Your task to perform on an android device: Go to calendar. Show me events next week Image 0: 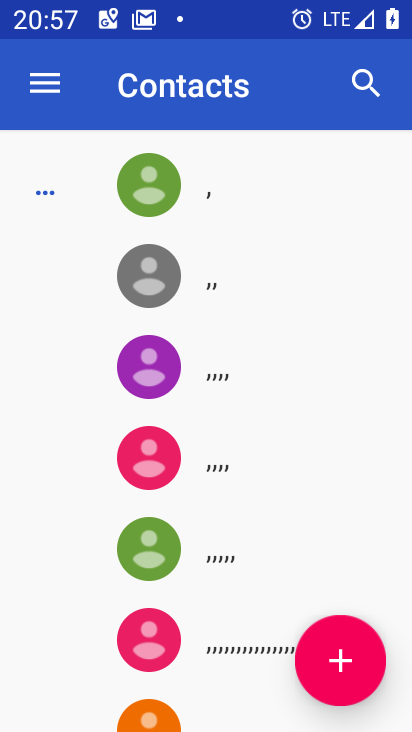
Step 0: press home button
Your task to perform on an android device: Go to calendar. Show me events next week Image 1: 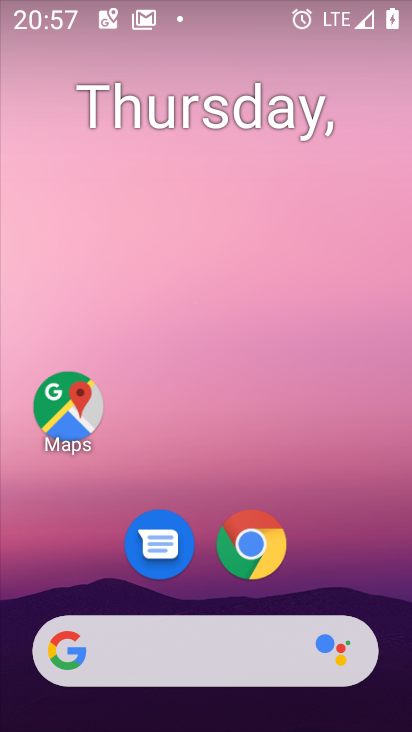
Step 1: click (192, 112)
Your task to perform on an android device: Go to calendar. Show me events next week Image 2: 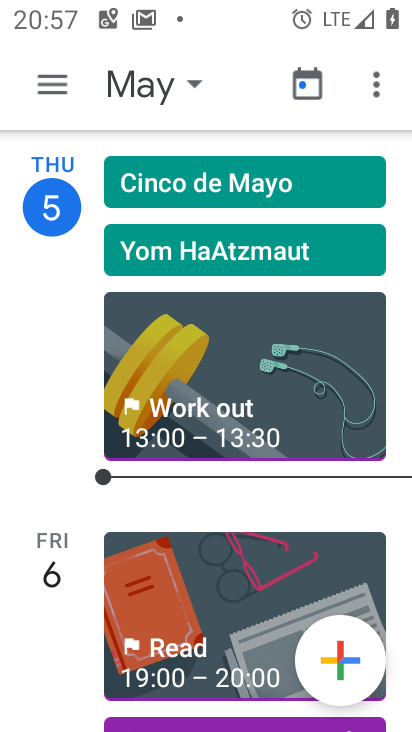
Step 2: click (178, 99)
Your task to perform on an android device: Go to calendar. Show me events next week Image 3: 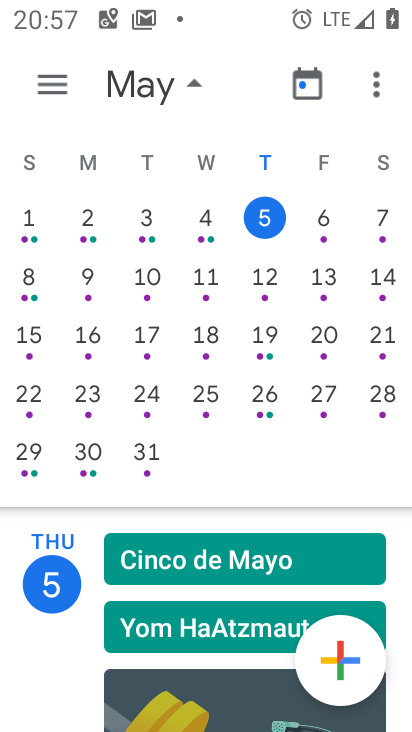
Step 3: click (166, 292)
Your task to perform on an android device: Go to calendar. Show me events next week Image 4: 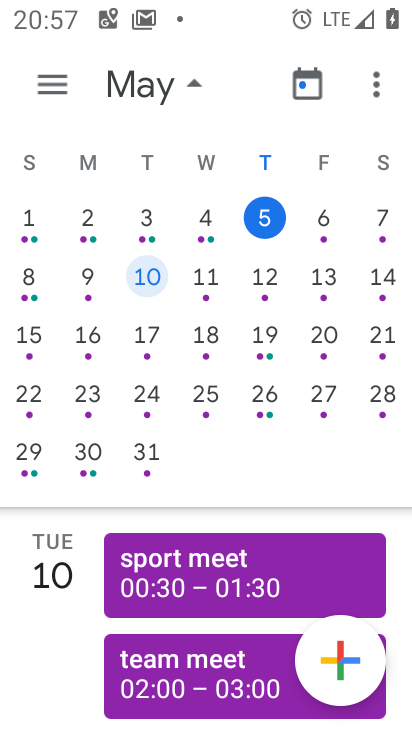
Step 4: task complete